Your task to perform on an android device: turn vacation reply on in the gmail app Image 0: 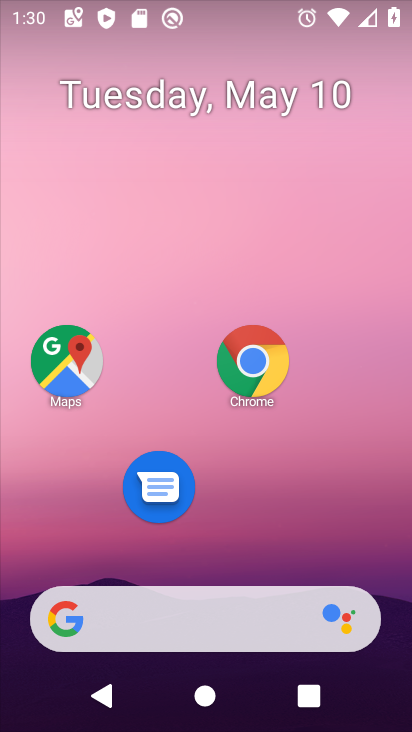
Step 0: drag from (230, 537) to (180, 145)
Your task to perform on an android device: turn vacation reply on in the gmail app Image 1: 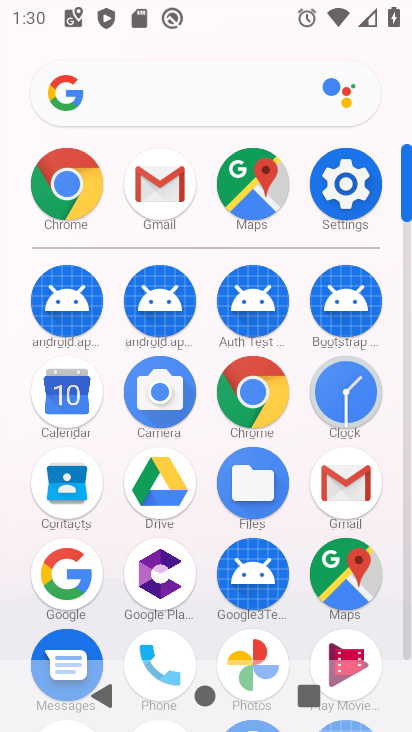
Step 1: click (348, 486)
Your task to perform on an android device: turn vacation reply on in the gmail app Image 2: 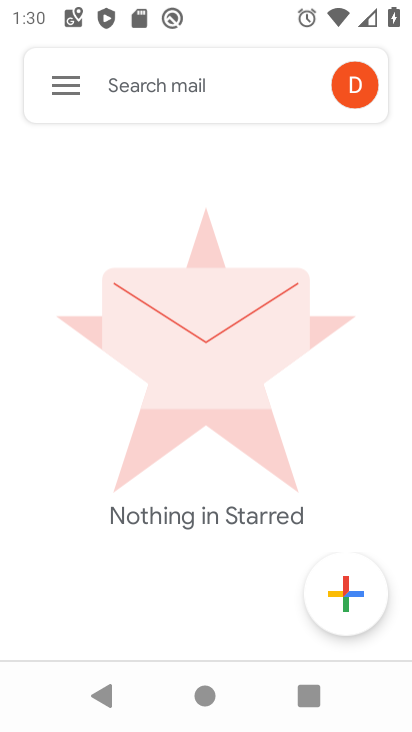
Step 2: click (77, 72)
Your task to perform on an android device: turn vacation reply on in the gmail app Image 3: 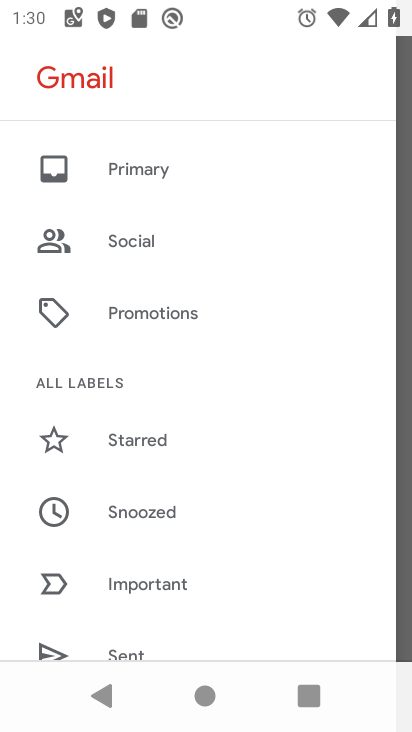
Step 3: drag from (50, 573) to (103, 162)
Your task to perform on an android device: turn vacation reply on in the gmail app Image 4: 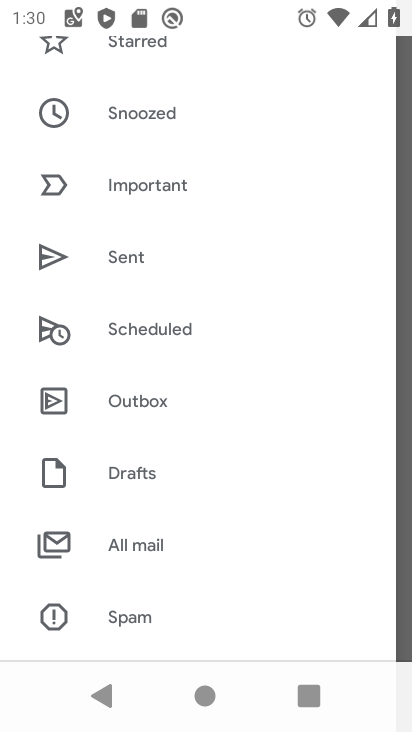
Step 4: drag from (172, 507) to (153, 178)
Your task to perform on an android device: turn vacation reply on in the gmail app Image 5: 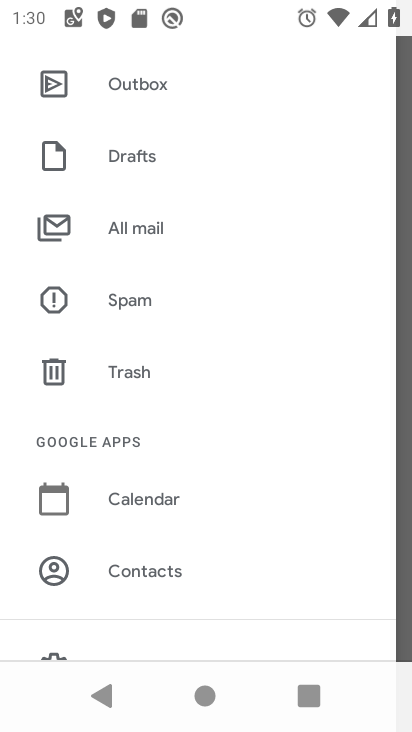
Step 5: click (164, 629)
Your task to perform on an android device: turn vacation reply on in the gmail app Image 6: 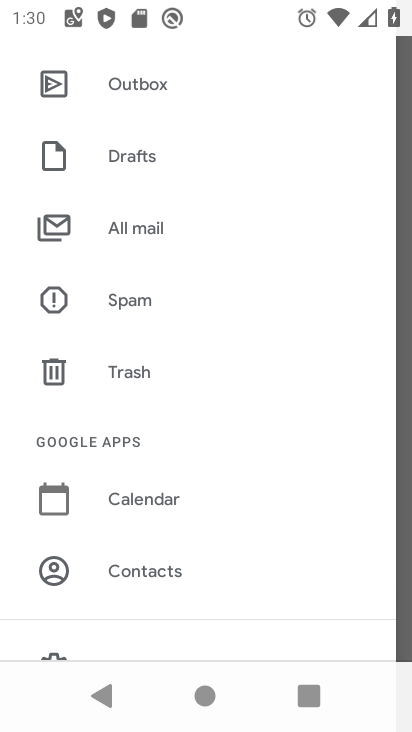
Step 6: click (167, 651)
Your task to perform on an android device: turn vacation reply on in the gmail app Image 7: 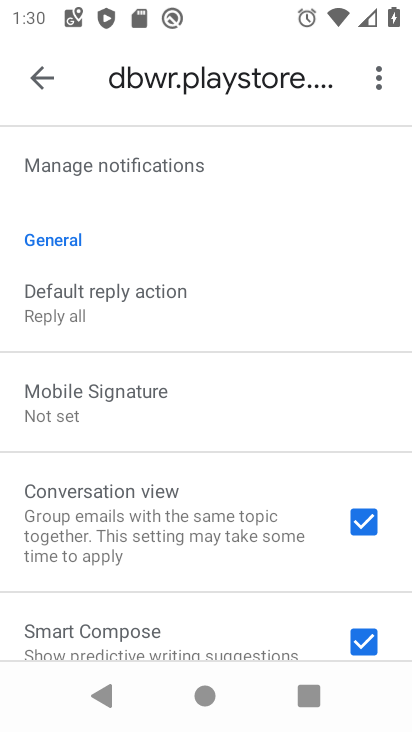
Step 7: drag from (107, 518) to (114, 213)
Your task to perform on an android device: turn vacation reply on in the gmail app Image 8: 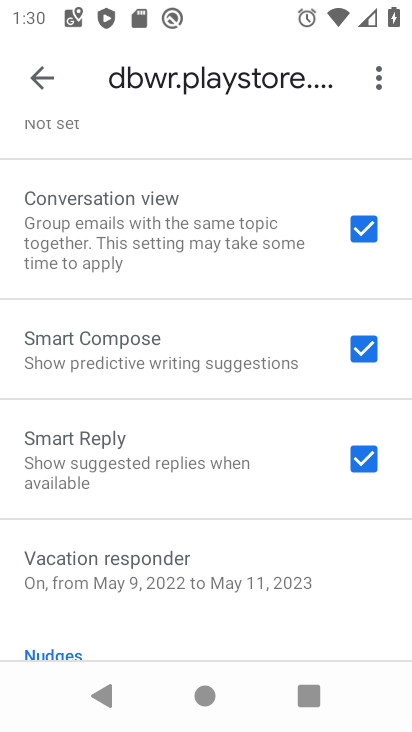
Step 8: drag from (166, 614) to (100, 208)
Your task to perform on an android device: turn vacation reply on in the gmail app Image 9: 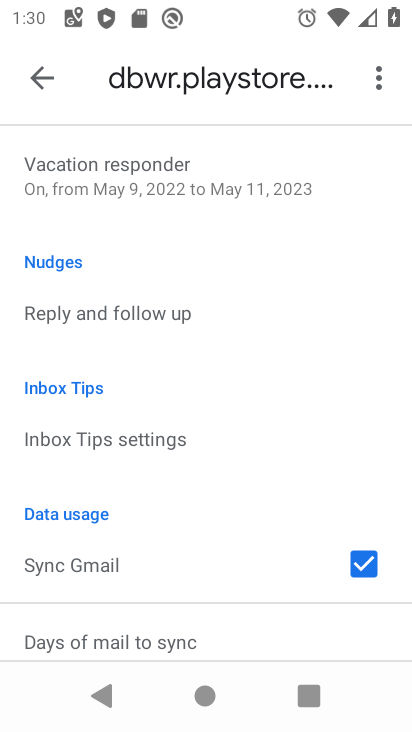
Step 9: drag from (124, 446) to (94, 159)
Your task to perform on an android device: turn vacation reply on in the gmail app Image 10: 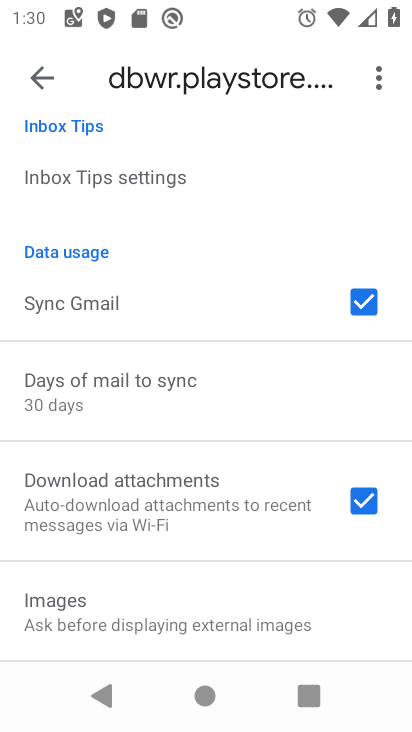
Step 10: drag from (102, 329) to (127, 240)
Your task to perform on an android device: turn vacation reply on in the gmail app Image 11: 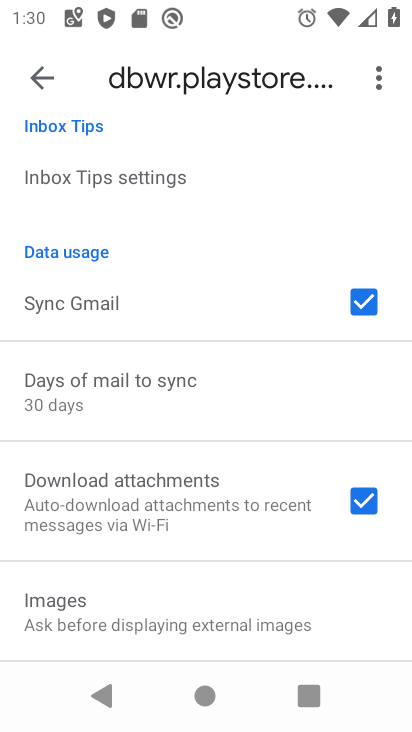
Step 11: click (53, 101)
Your task to perform on an android device: turn vacation reply on in the gmail app Image 12: 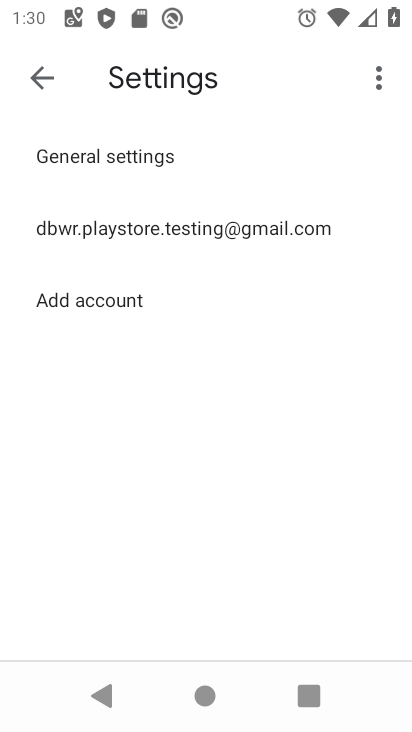
Step 12: click (77, 256)
Your task to perform on an android device: turn vacation reply on in the gmail app Image 13: 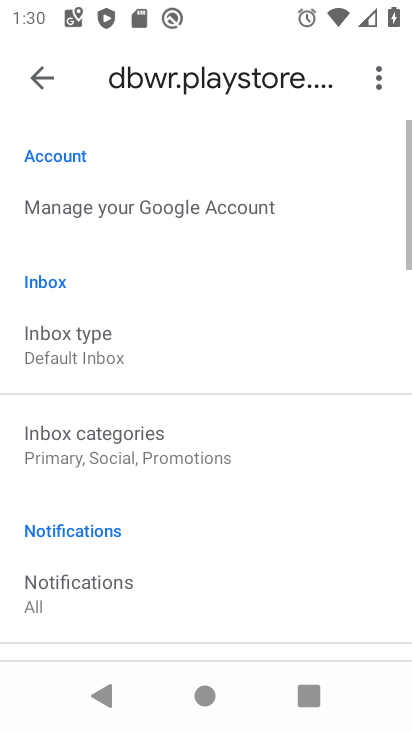
Step 13: drag from (126, 484) to (116, 304)
Your task to perform on an android device: turn vacation reply on in the gmail app Image 14: 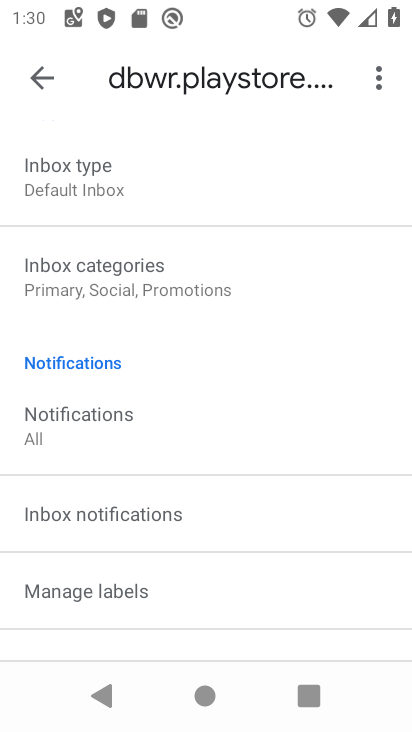
Step 14: drag from (76, 433) to (127, 186)
Your task to perform on an android device: turn vacation reply on in the gmail app Image 15: 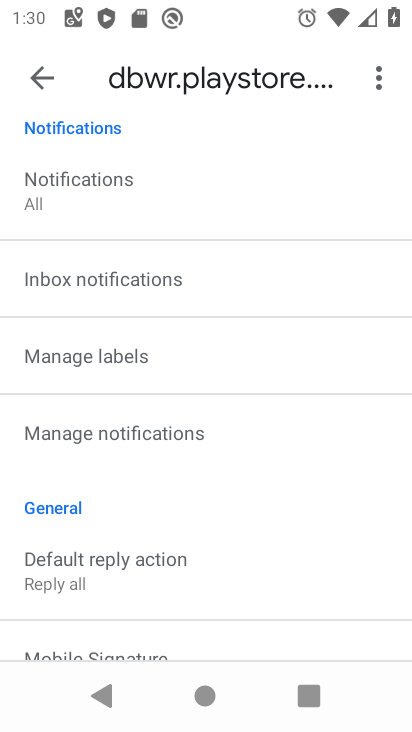
Step 15: drag from (156, 489) to (119, 240)
Your task to perform on an android device: turn vacation reply on in the gmail app Image 16: 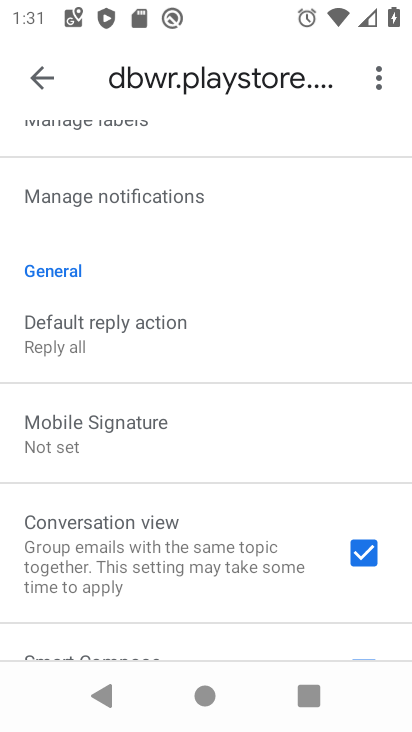
Step 16: drag from (201, 594) to (198, 366)
Your task to perform on an android device: turn vacation reply on in the gmail app Image 17: 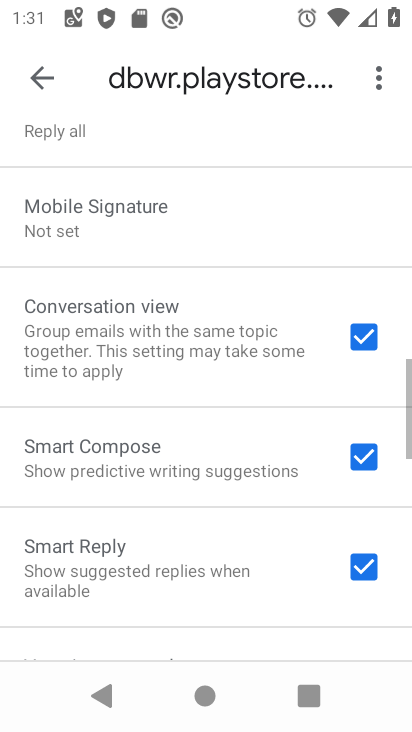
Step 17: click (198, 366)
Your task to perform on an android device: turn vacation reply on in the gmail app Image 18: 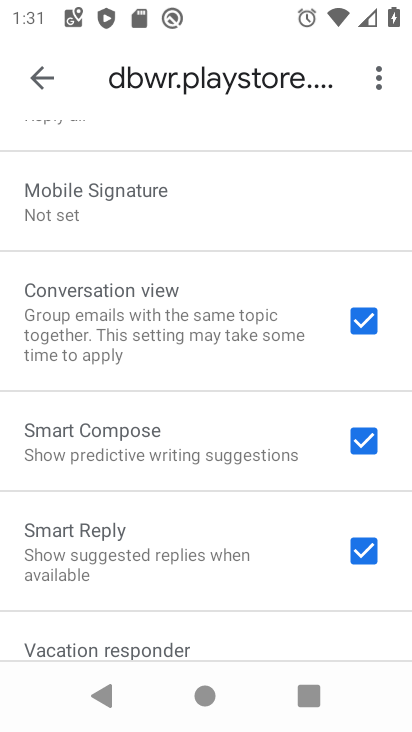
Step 18: drag from (198, 517) to (144, 255)
Your task to perform on an android device: turn vacation reply on in the gmail app Image 19: 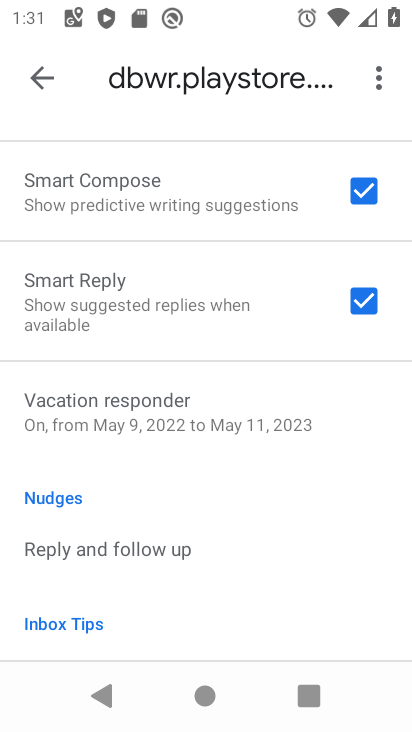
Step 19: click (163, 394)
Your task to perform on an android device: turn vacation reply on in the gmail app Image 20: 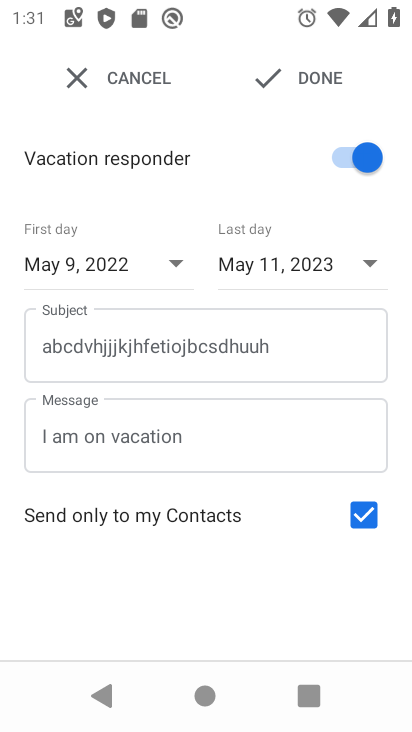
Step 20: click (343, 84)
Your task to perform on an android device: turn vacation reply on in the gmail app Image 21: 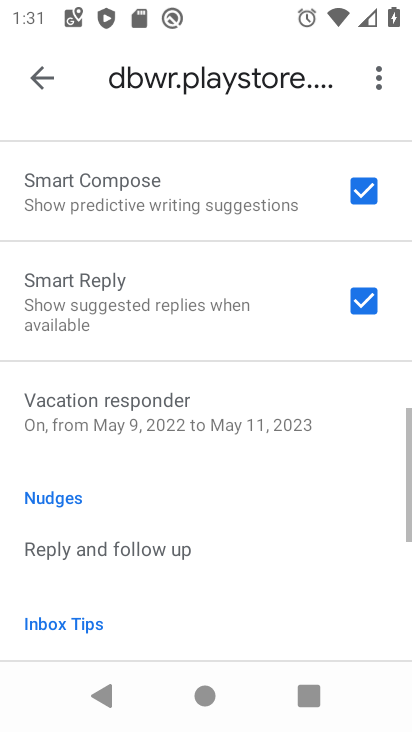
Step 21: task complete